Your task to perform on an android device: toggle show notifications on the lock screen Image 0: 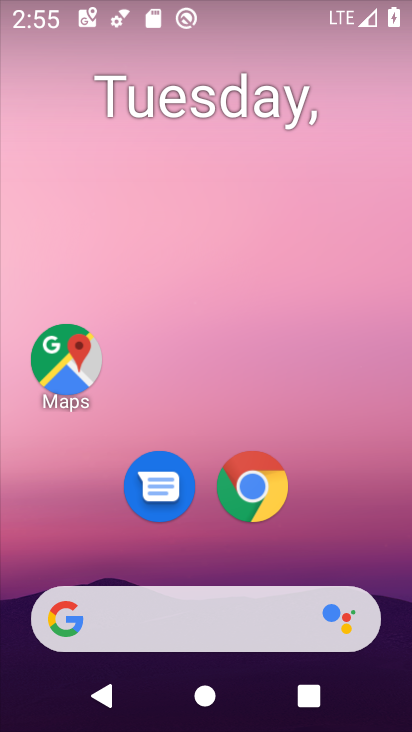
Step 0: drag from (391, 643) to (290, 90)
Your task to perform on an android device: toggle show notifications on the lock screen Image 1: 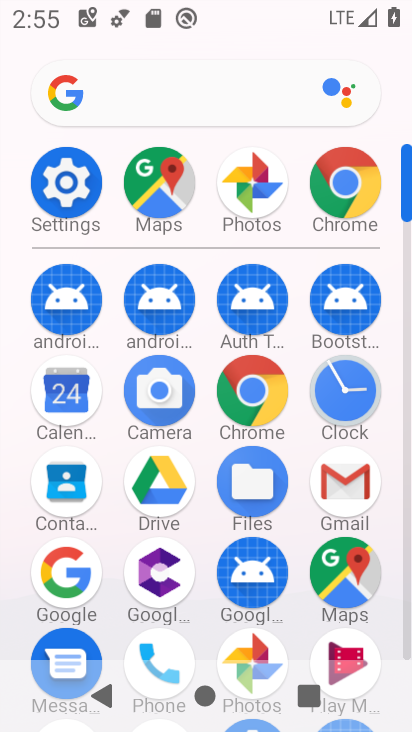
Step 1: click (65, 174)
Your task to perform on an android device: toggle show notifications on the lock screen Image 2: 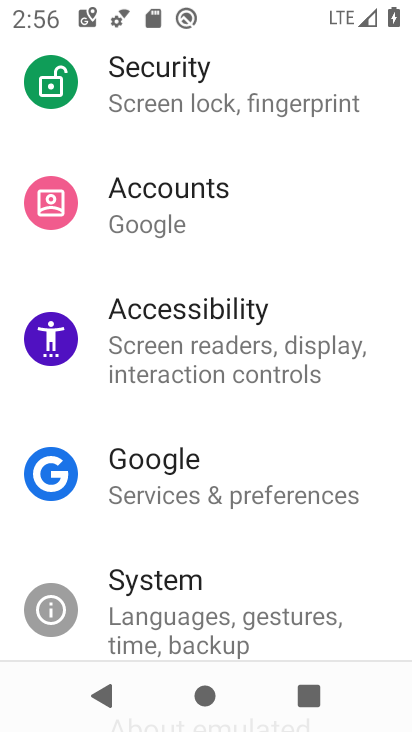
Step 2: drag from (227, 93) to (224, 597)
Your task to perform on an android device: toggle show notifications on the lock screen Image 3: 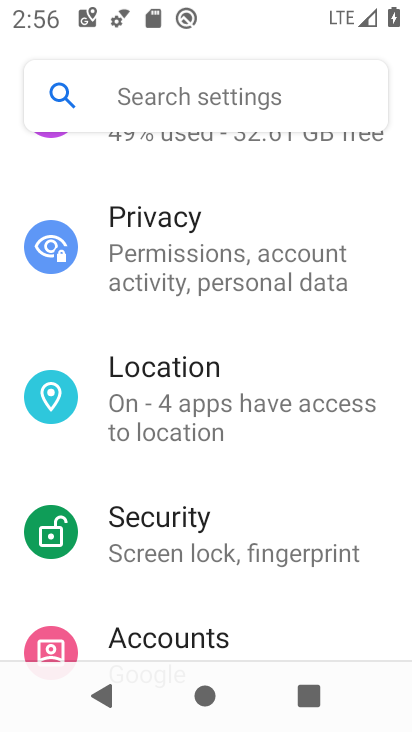
Step 3: drag from (235, 154) to (231, 545)
Your task to perform on an android device: toggle show notifications on the lock screen Image 4: 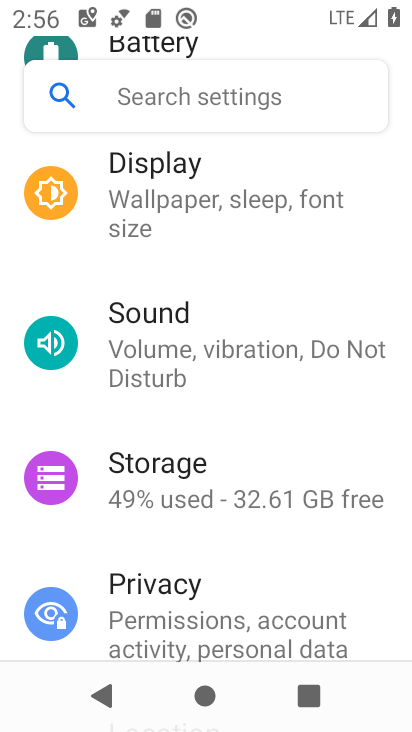
Step 4: drag from (191, 163) to (197, 530)
Your task to perform on an android device: toggle show notifications on the lock screen Image 5: 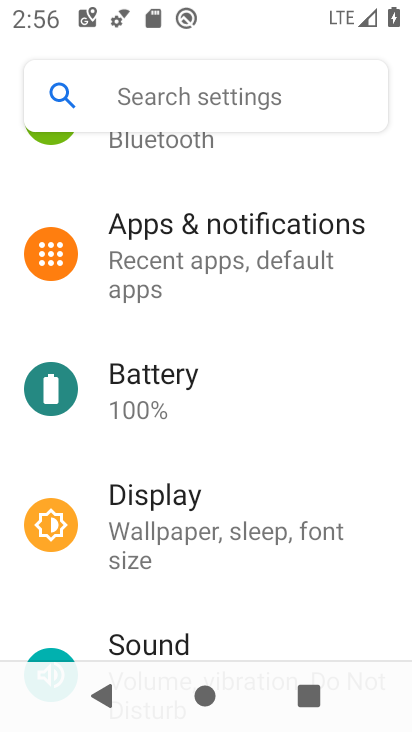
Step 5: click (244, 228)
Your task to perform on an android device: toggle show notifications on the lock screen Image 6: 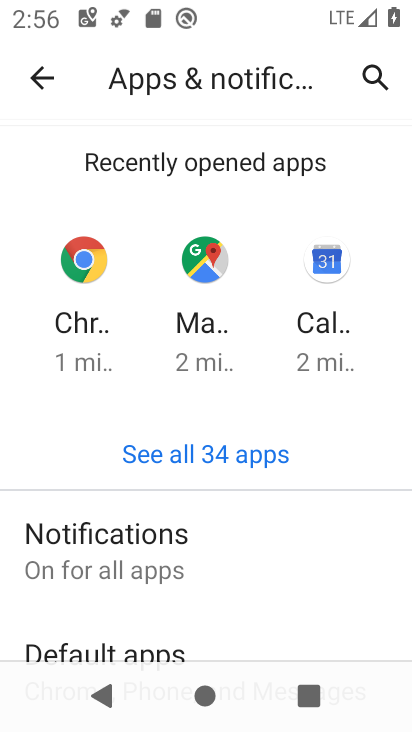
Step 6: click (206, 541)
Your task to perform on an android device: toggle show notifications on the lock screen Image 7: 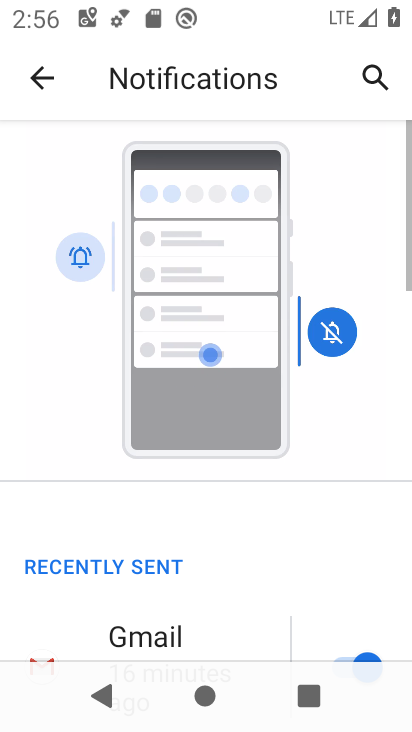
Step 7: drag from (199, 611) to (191, 205)
Your task to perform on an android device: toggle show notifications on the lock screen Image 8: 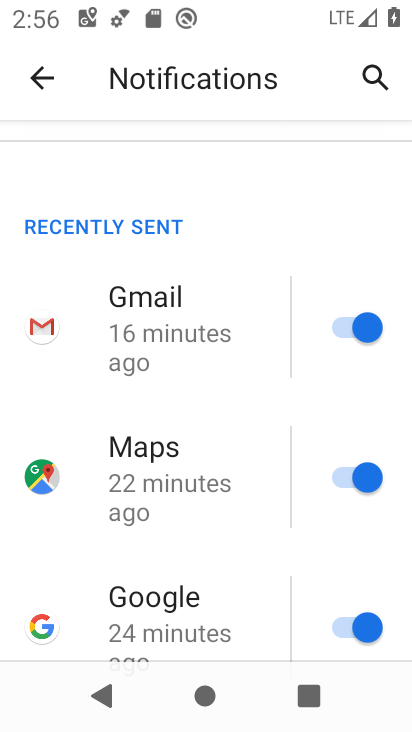
Step 8: drag from (175, 616) to (172, 215)
Your task to perform on an android device: toggle show notifications on the lock screen Image 9: 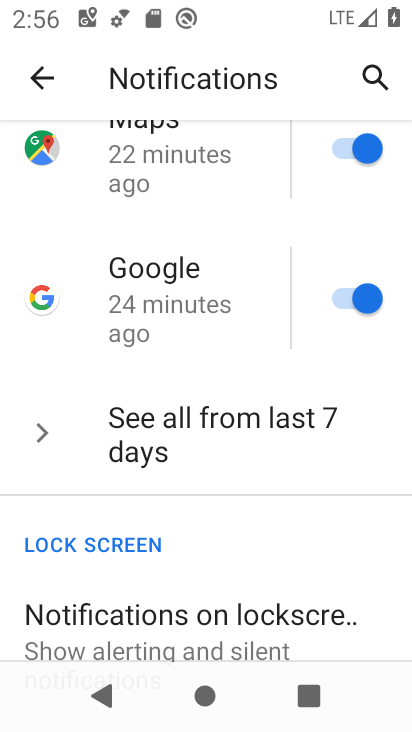
Step 9: click (181, 612)
Your task to perform on an android device: toggle show notifications on the lock screen Image 10: 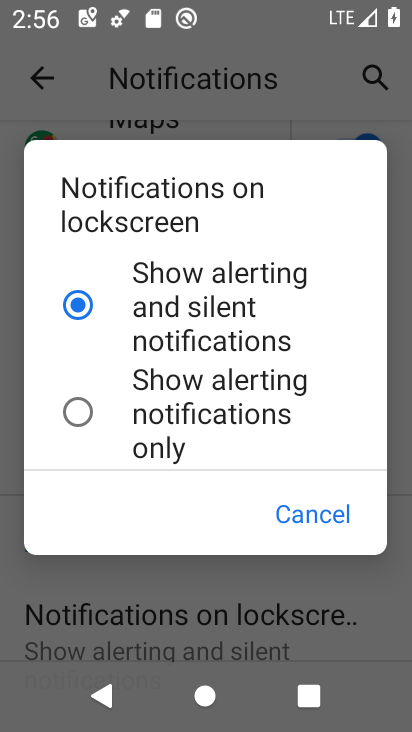
Step 10: click (78, 406)
Your task to perform on an android device: toggle show notifications on the lock screen Image 11: 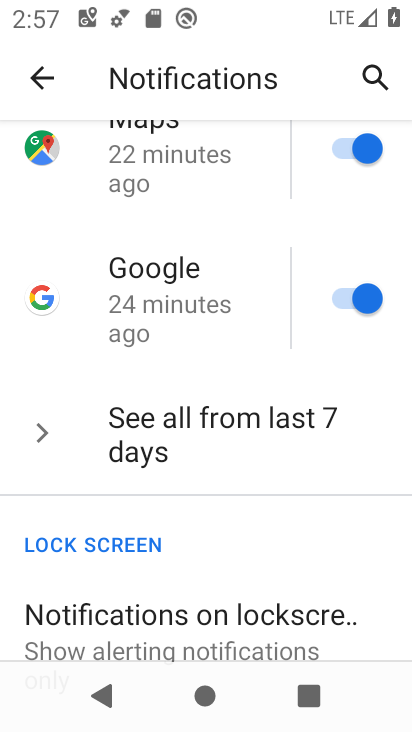
Step 11: click (148, 617)
Your task to perform on an android device: toggle show notifications on the lock screen Image 12: 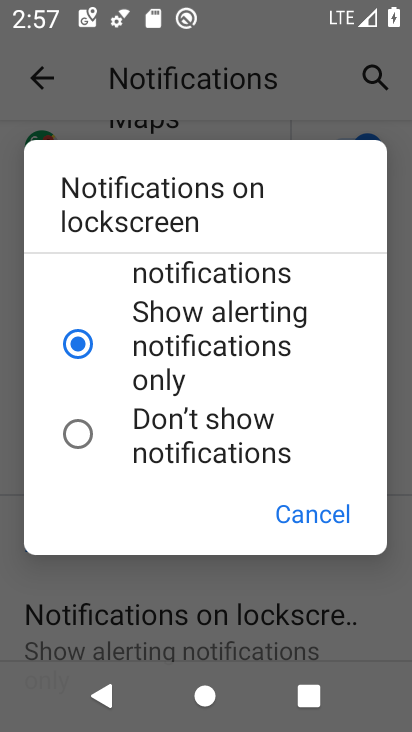
Step 12: task complete